Your task to perform on an android device: Is it going to rain this weekend? Image 0: 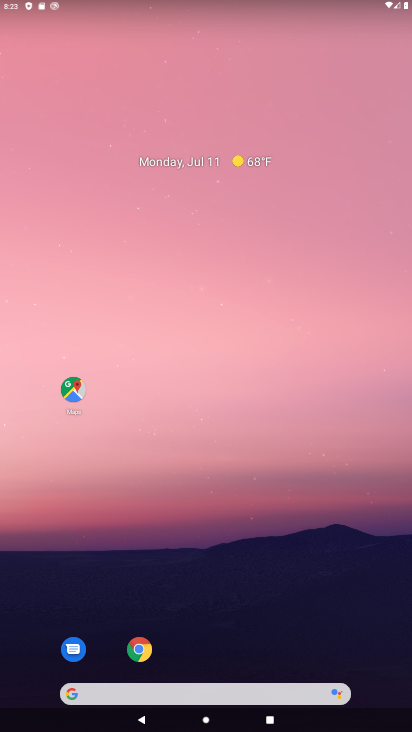
Step 0: drag from (234, 697) to (155, 217)
Your task to perform on an android device: Is it going to rain this weekend? Image 1: 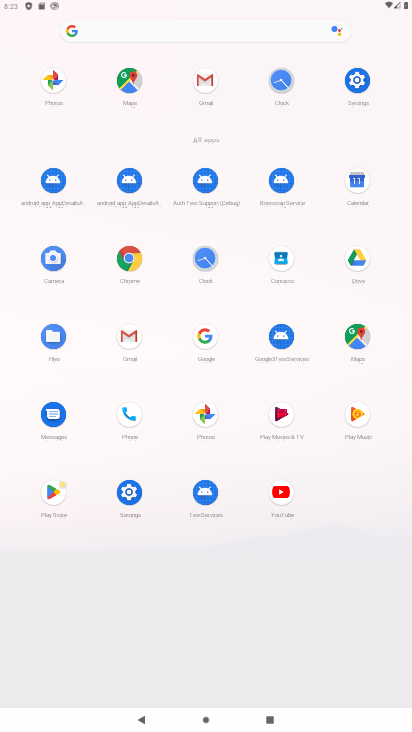
Step 1: press back button
Your task to perform on an android device: Is it going to rain this weekend? Image 2: 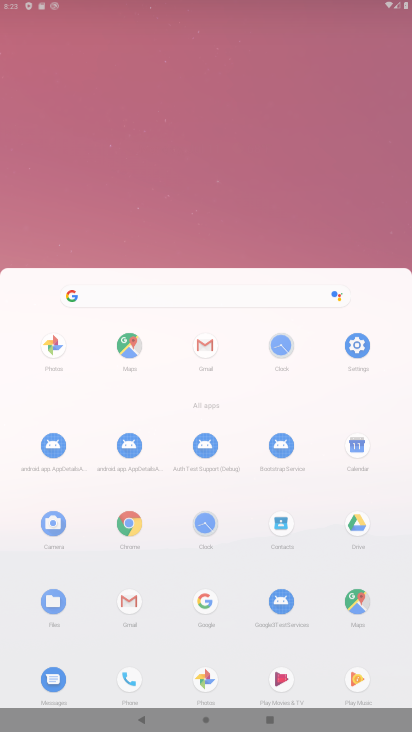
Step 2: press back button
Your task to perform on an android device: Is it going to rain this weekend? Image 3: 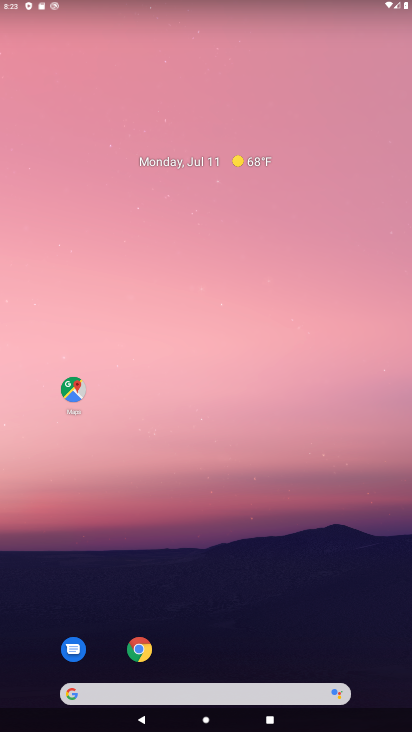
Step 3: press back button
Your task to perform on an android device: Is it going to rain this weekend? Image 4: 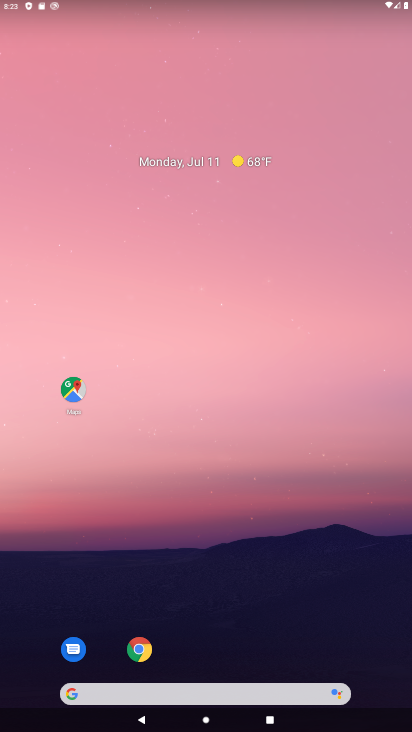
Step 4: click (21, 157)
Your task to perform on an android device: Is it going to rain this weekend? Image 5: 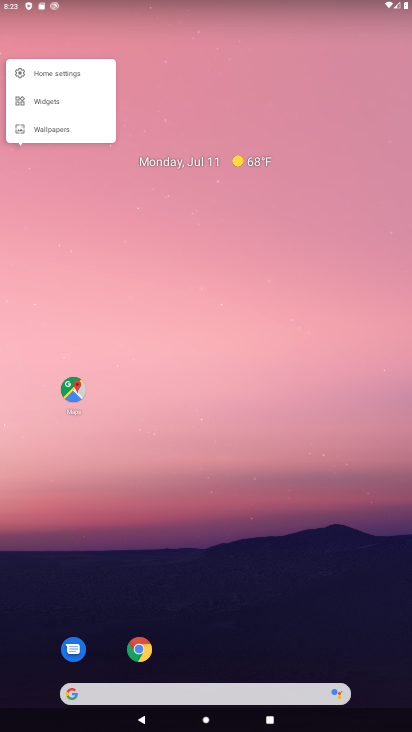
Step 5: click (260, 150)
Your task to perform on an android device: Is it going to rain this weekend? Image 6: 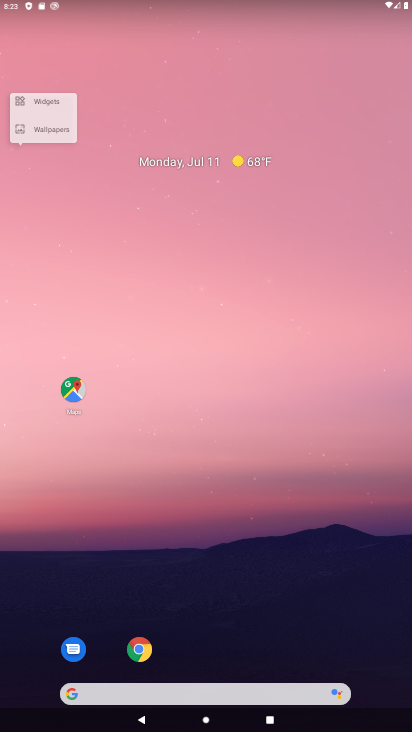
Step 6: click (258, 161)
Your task to perform on an android device: Is it going to rain this weekend? Image 7: 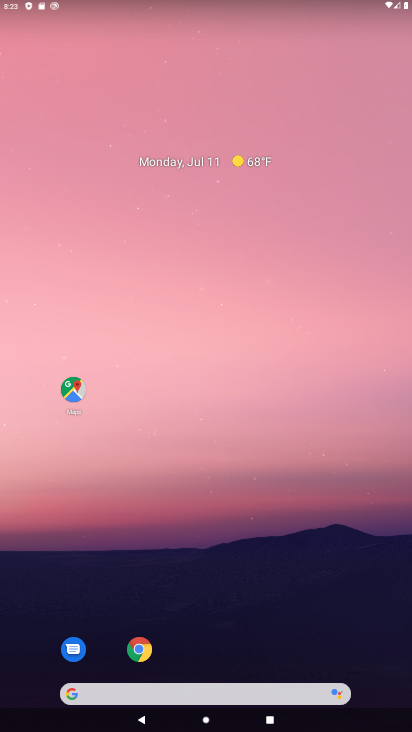
Step 7: click (258, 161)
Your task to perform on an android device: Is it going to rain this weekend? Image 8: 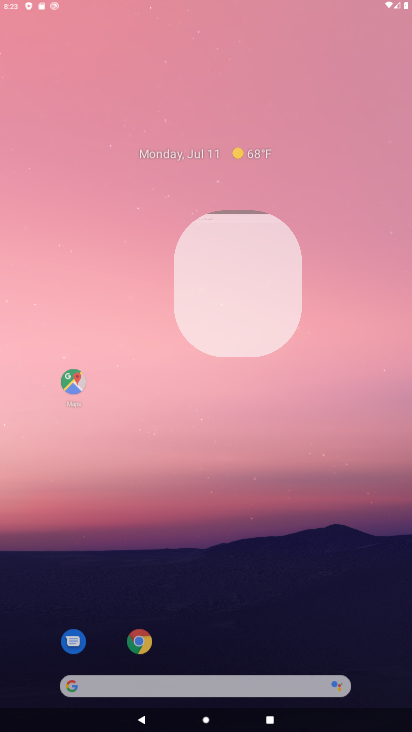
Step 8: click (258, 161)
Your task to perform on an android device: Is it going to rain this weekend? Image 9: 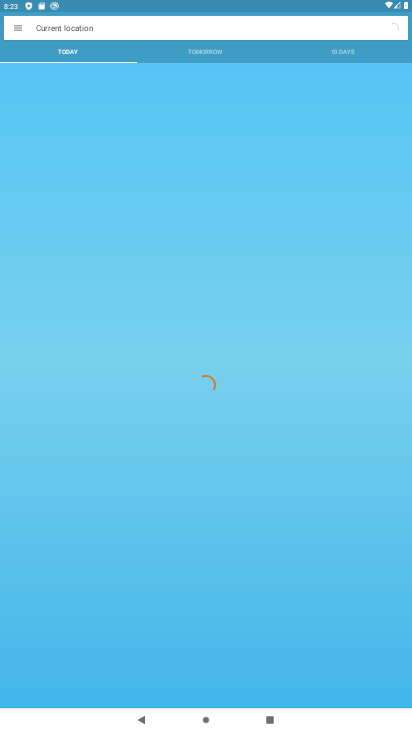
Step 9: click (258, 161)
Your task to perform on an android device: Is it going to rain this weekend? Image 10: 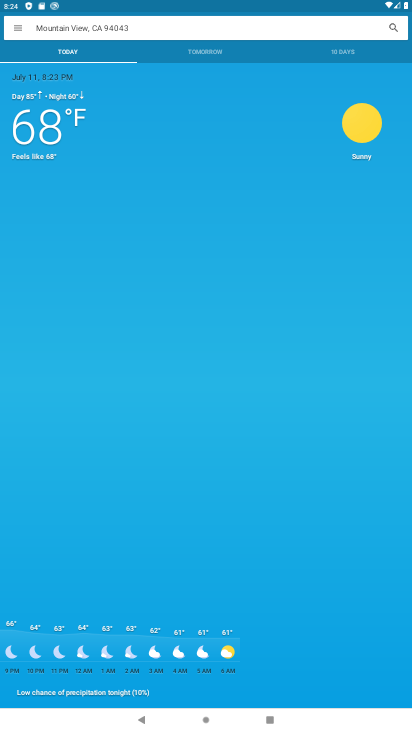
Step 10: click (48, 138)
Your task to perform on an android device: Is it going to rain this weekend? Image 11: 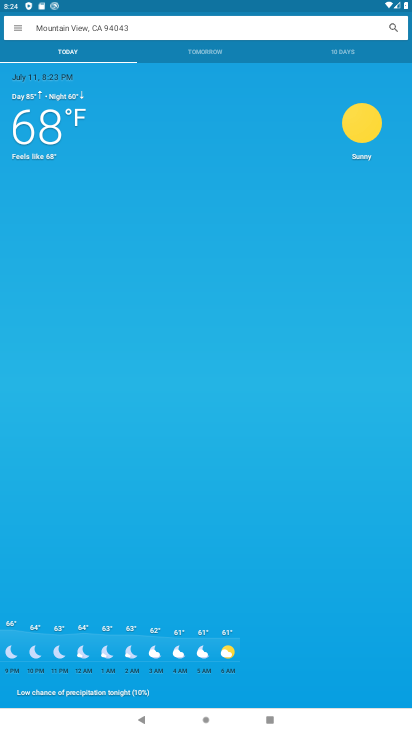
Step 11: click (48, 138)
Your task to perform on an android device: Is it going to rain this weekend? Image 12: 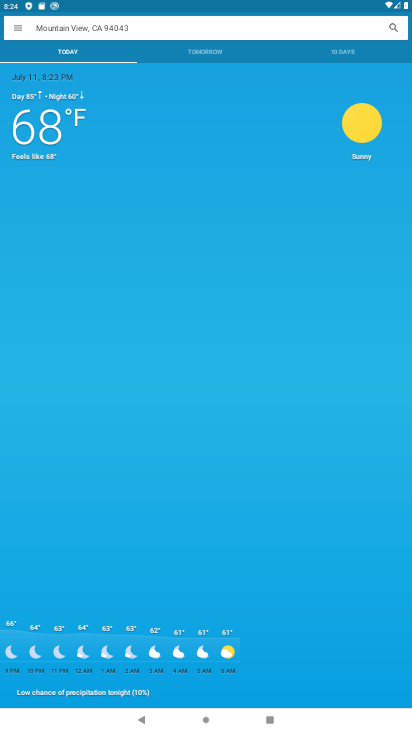
Step 12: click (200, 52)
Your task to perform on an android device: Is it going to rain this weekend? Image 13: 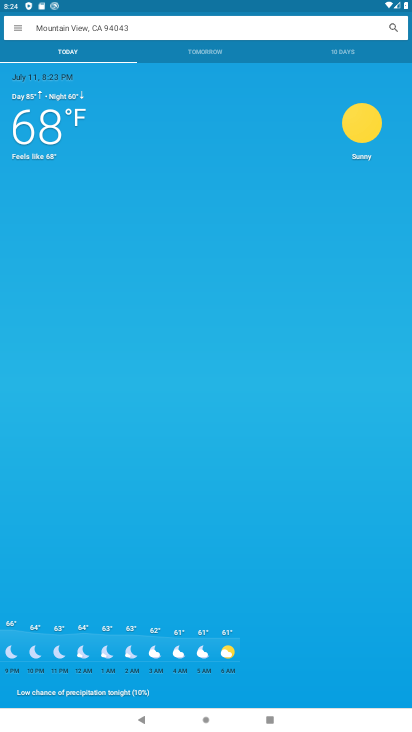
Step 13: click (200, 52)
Your task to perform on an android device: Is it going to rain this weekend? Image 14: 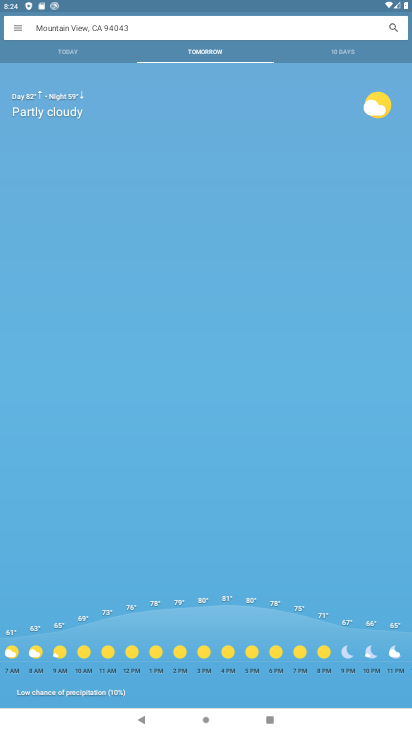
Step 14: click (343, 52)
Your task to perform on an android device: Is it going to rain this weekend? Image 15: 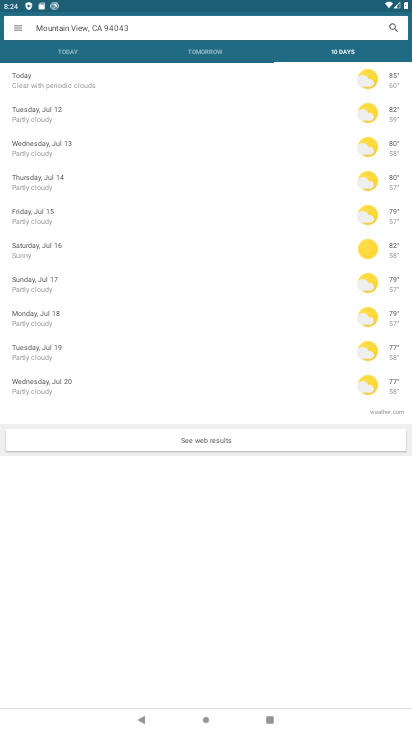
Step 15: click (343, 52)
Your task to perform on an android device: Is it going to rain this weekend? Image 16: 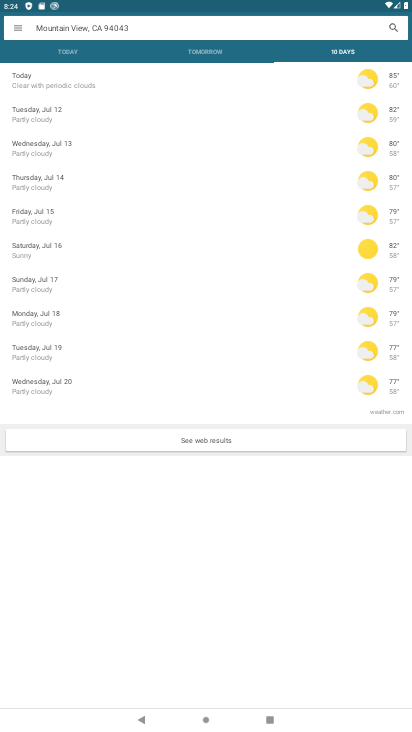
Step 16: click (343, 52)
Your task to perform on an android device: Is it going to rain this weekend? Image 17: 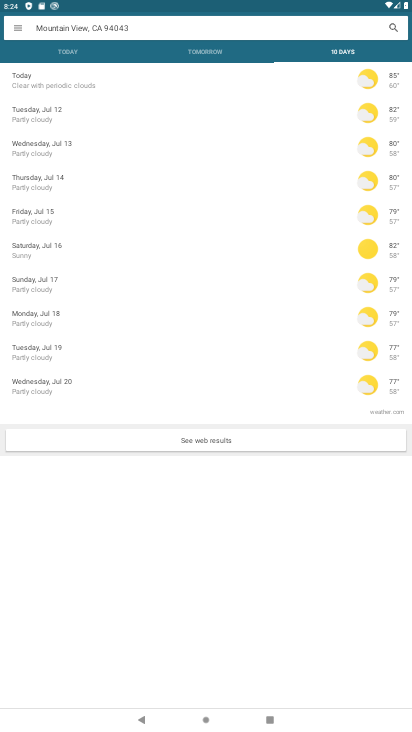
Step 17: task complete